Your task to perform on an android device: Show me productivity apps on the Play Store Image 0: 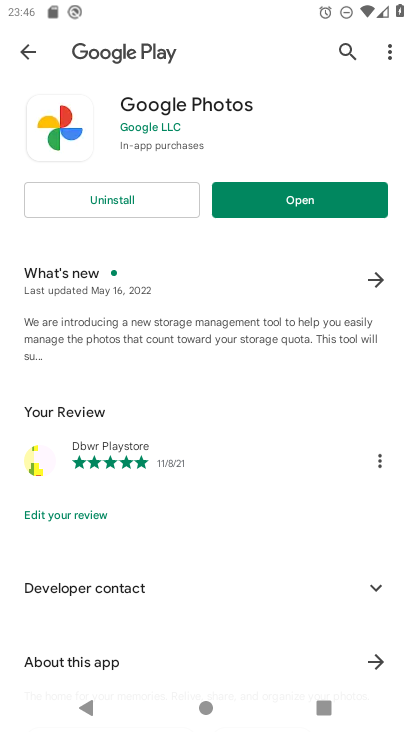
Step 0: press home button
Your task to perform on an android device: Show me productivity apps on the Play Store Image 1: 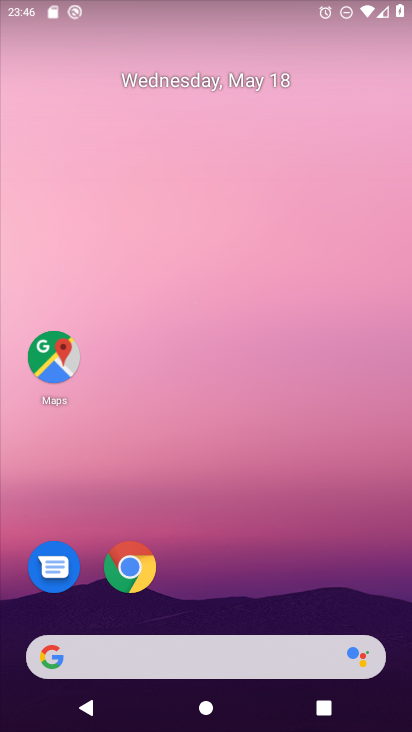
Step 1: drag from (186, 678) to (299, 103)
Your task to perform on an android device: Show me productivity apps on the Play Store Image 2: 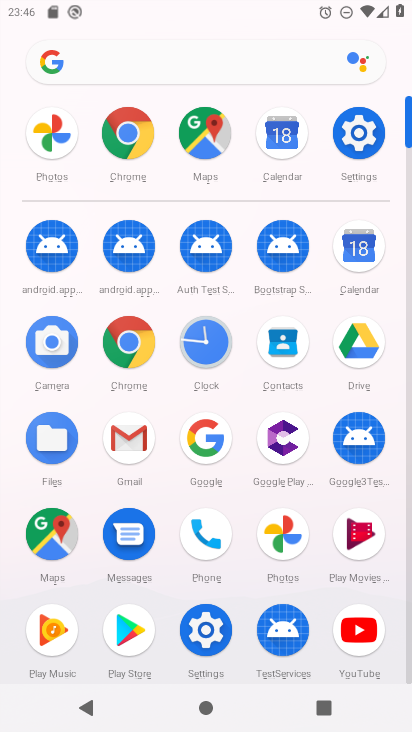
Step 2: click (127, 616)
Your task to perform on an android device: Show me productivity apps on the Play Store Image 3: 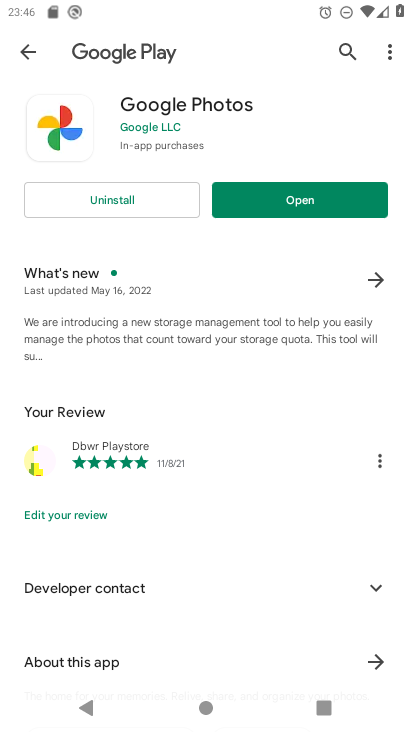
Step 3: click (341, 58)
Your task to perform on an android device: Show me productivity apps on the Play Store Image 4: 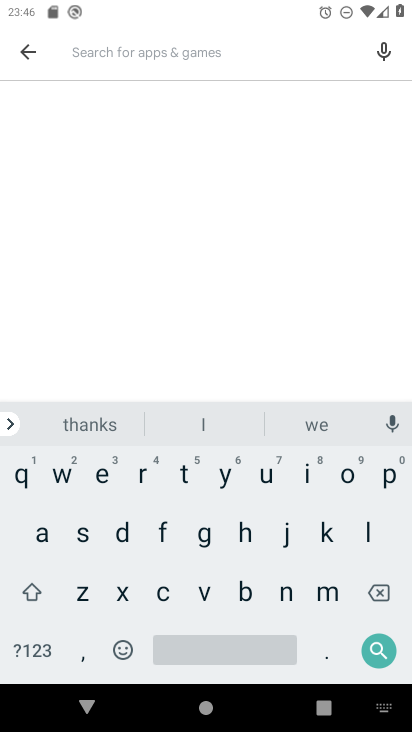
Step 4: click (384, 476)
Your task to perform on an android device: Show me productivity apps on the Play Store Image 5: 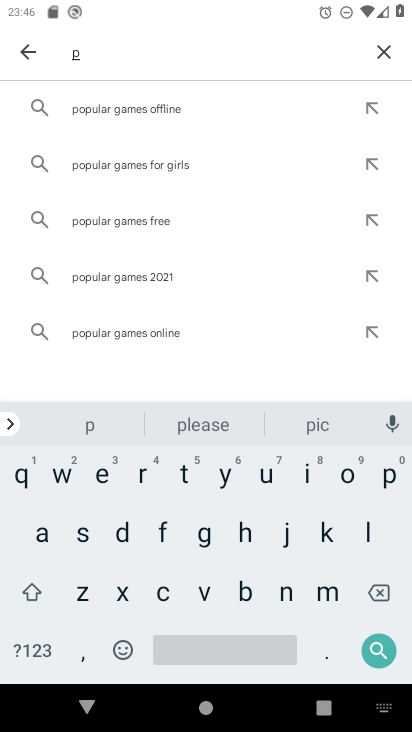
Step 5: click (137, 482)
Your task to perform on an android device: Show me productivity apps on the Play Store Image 6: 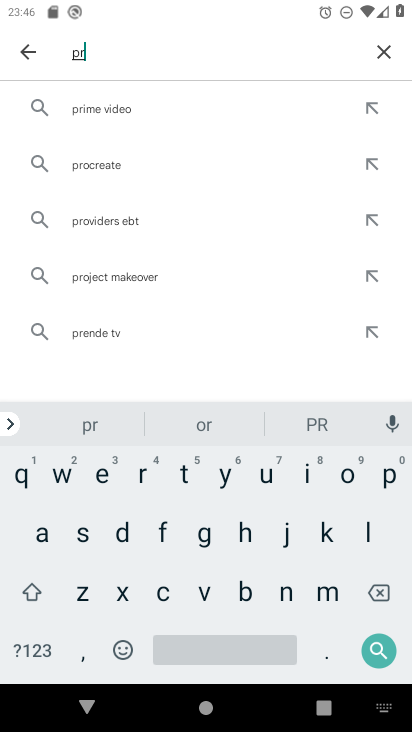
Step 6: click (355, 467)
Your task to perform on an android device: Show me productivity apps on the Play Store Image 7: 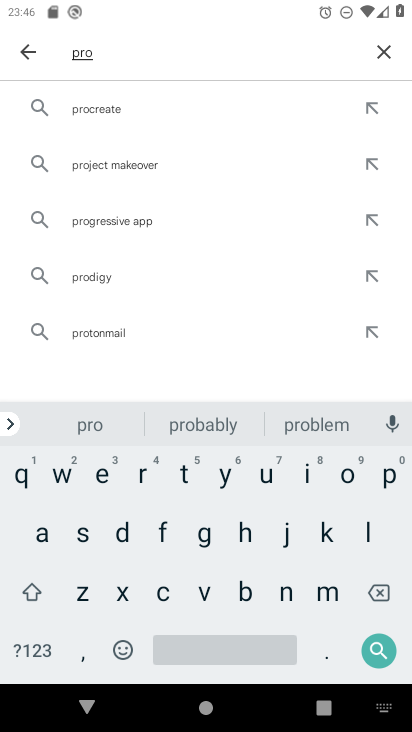
Step 7: click (122, 536)
Your task to perform on an android device: Show me productivity apps on the Play Store Image 8: 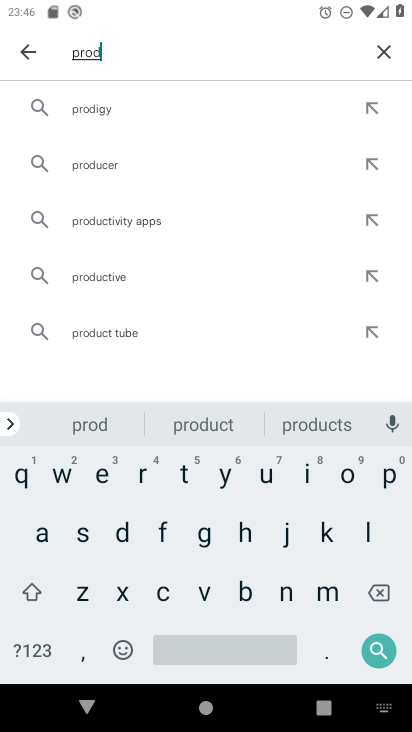
Step 8: click (277, 472)
Your task to perform on an android device: Show me productivity apps on the Play Store Image 9: 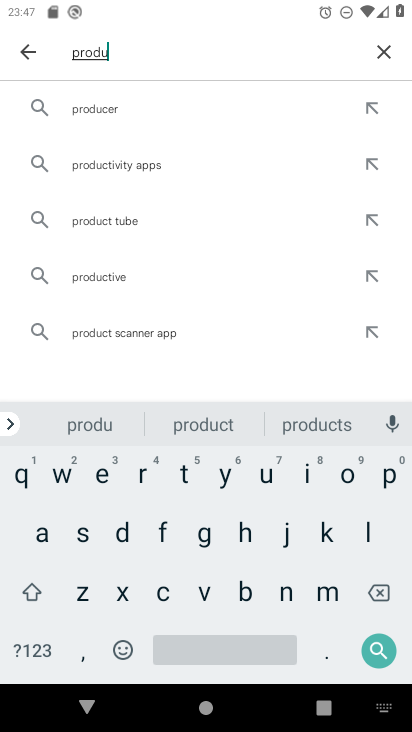
Step 9: click (161, 600)
Your task to perform on an android device: Show me productivity apps on the Play Store Image 10: 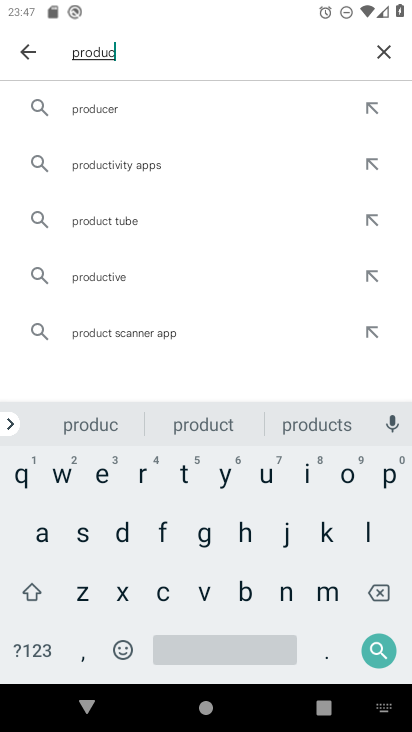
Step 10: click (188, 460)
Your task to perform on an android device: Show me productivity apps on the Play Store Image 11: 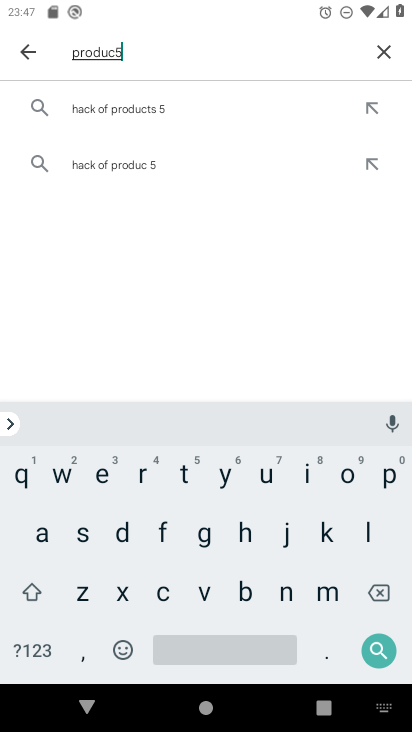
Step 11: click (393, 582)
Your task to perform on an android device: Show me productivity apps on the Play Store Image 12: 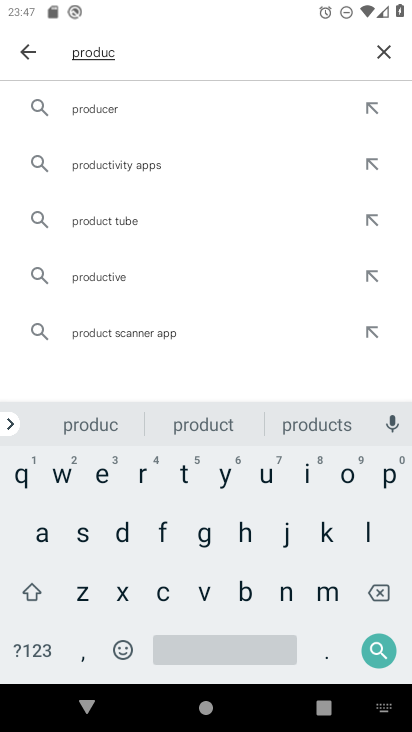
Step 12: click (113, 173)
Your task to perform on an android device: Show me productivity apps on the Play Store Image 13: 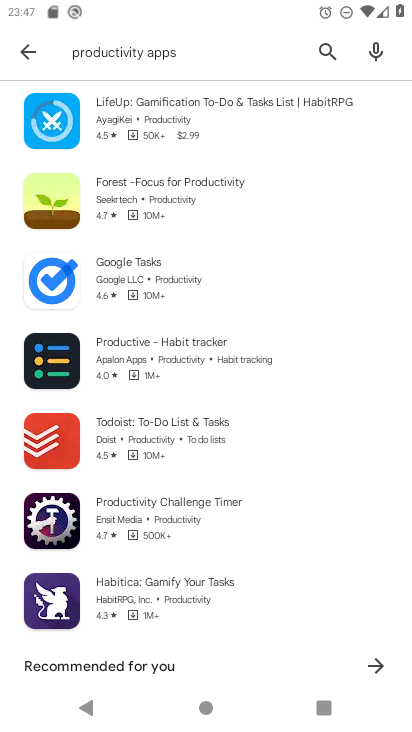
Step 13: task complete